Your task to perform on an android device: Open the phone app and click the voicemail tab. Image 0: 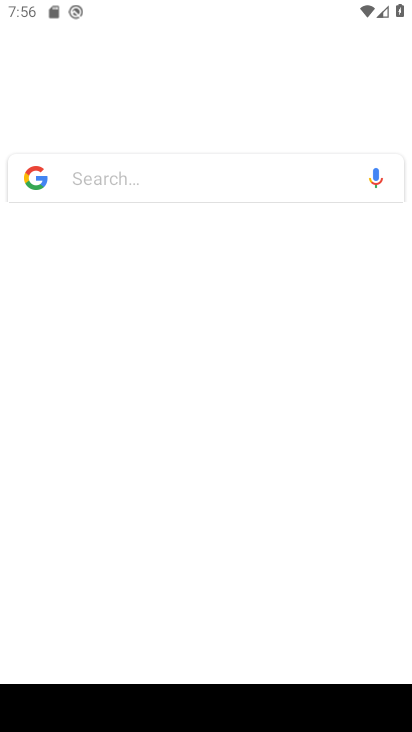
Step 0: click (3, 606)
Your task to perform on an android device: Open the phone app and click the voicemail tab. Image 1: 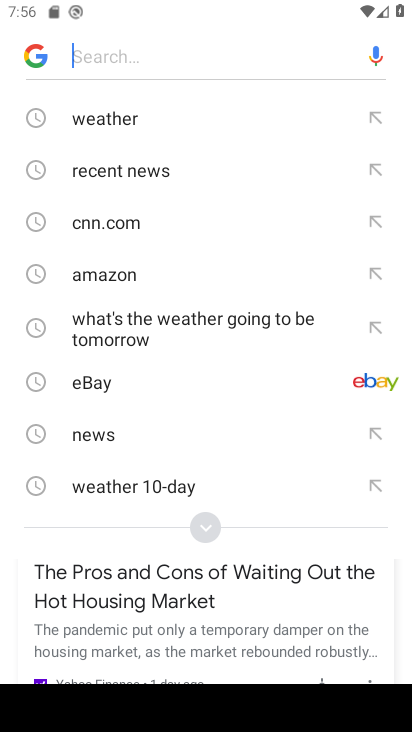
Step 1: press home button
Your task to perform on an android device: Open the phone app and click the voicemail tab. Image 2: 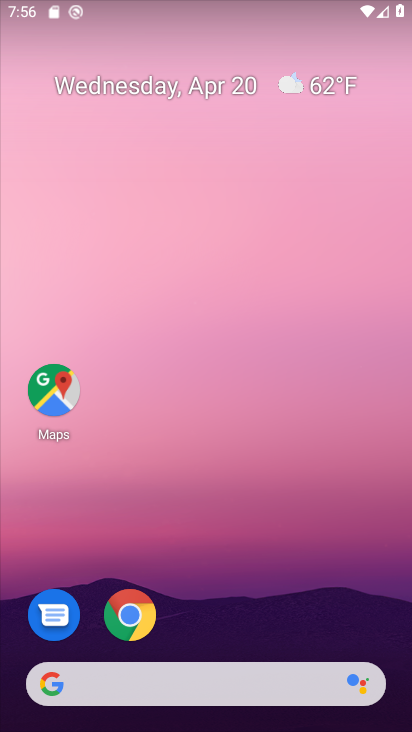
Step 2: drag from (201, 628) to (267, 14)
Your task to perform on an android device: Open the phone app and click the voicemail tab. Image 3: 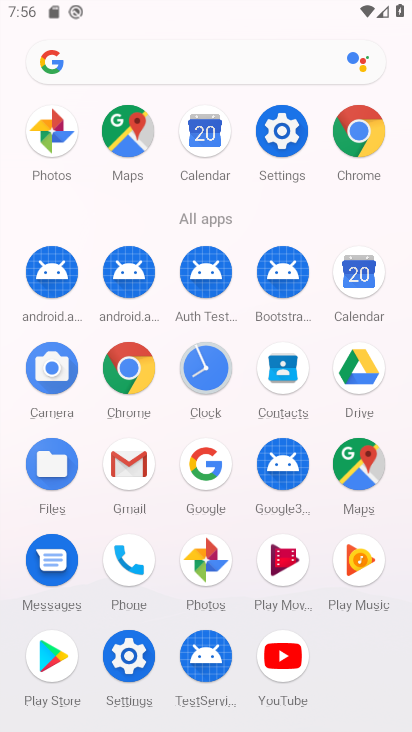
Step 3: click (139, 566)
Your task to perform on an android device: Open the phone app and click the voicemail tab. Image 4: 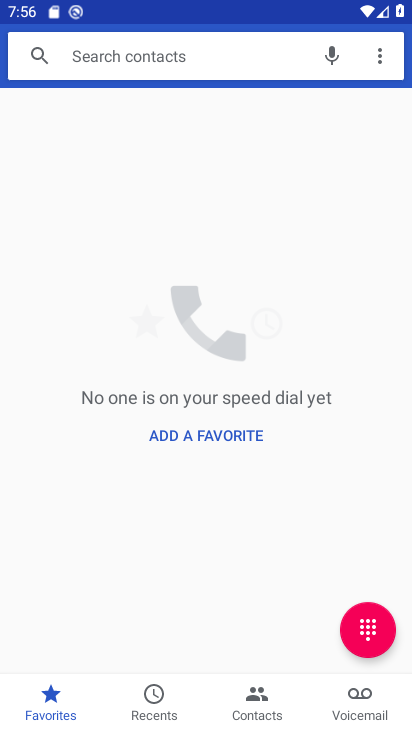
Step 4: click (355, 706)
Your task to perform on an android device: Open the phone app and click the voicemail tab. Image 5: 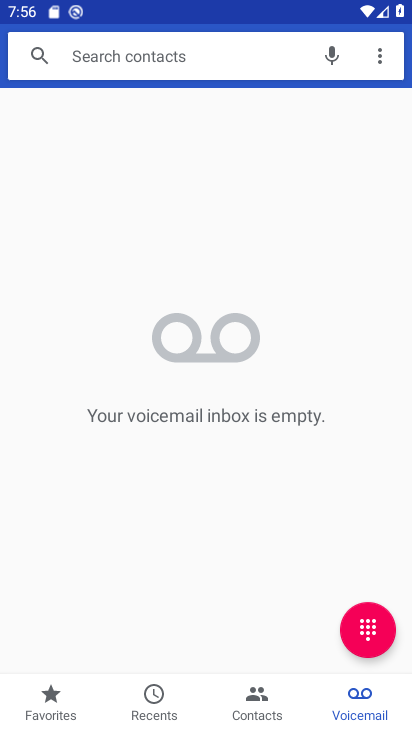
Step 5: task complete